Your task to perform on an android device: turn notification dots off Image 0: 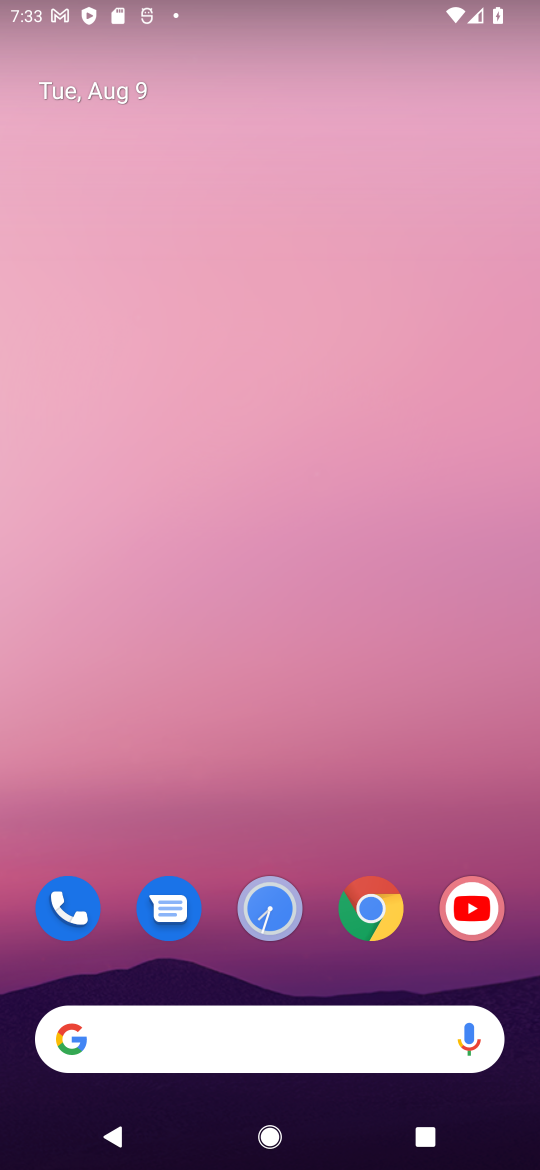
Step 0: drag from (298, 854) to (300, 104)
Your task to perform on an android device: turn notification dots off Image 1: 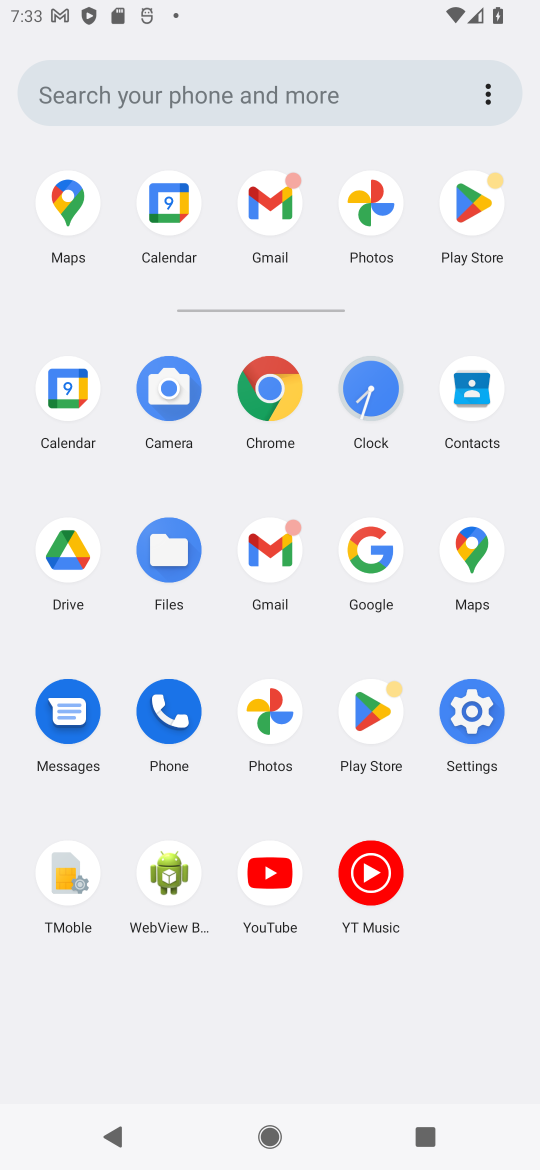
Step 1: click (472, 704)
Your task to perform on an android device: turn notification dots off Image 2: 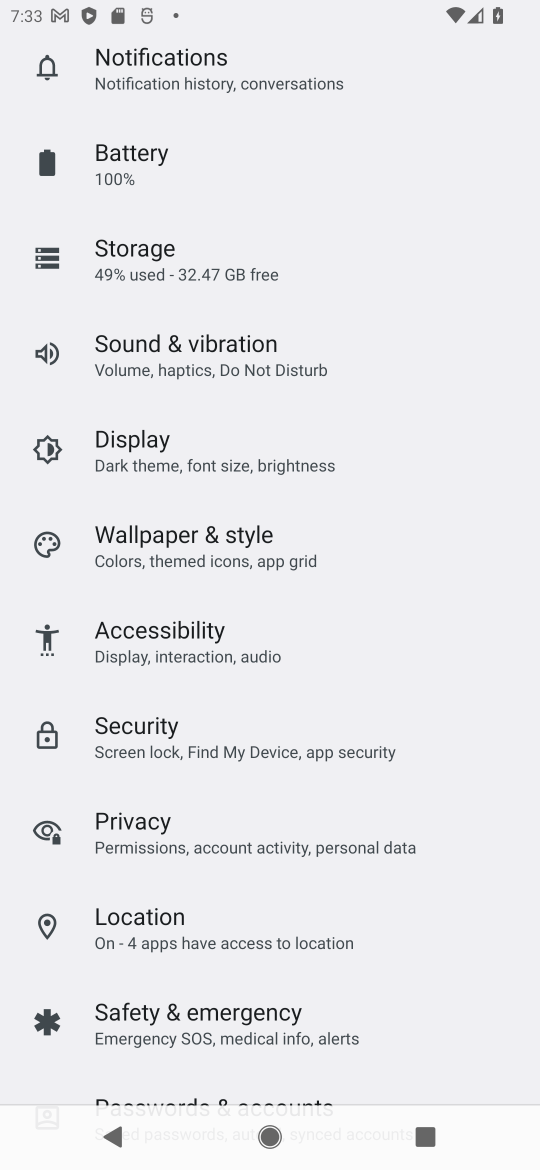
Step 2: drag from (195, 315) to (209, 748)
Your task to perform on an android device: turn notification dots off Image 3: 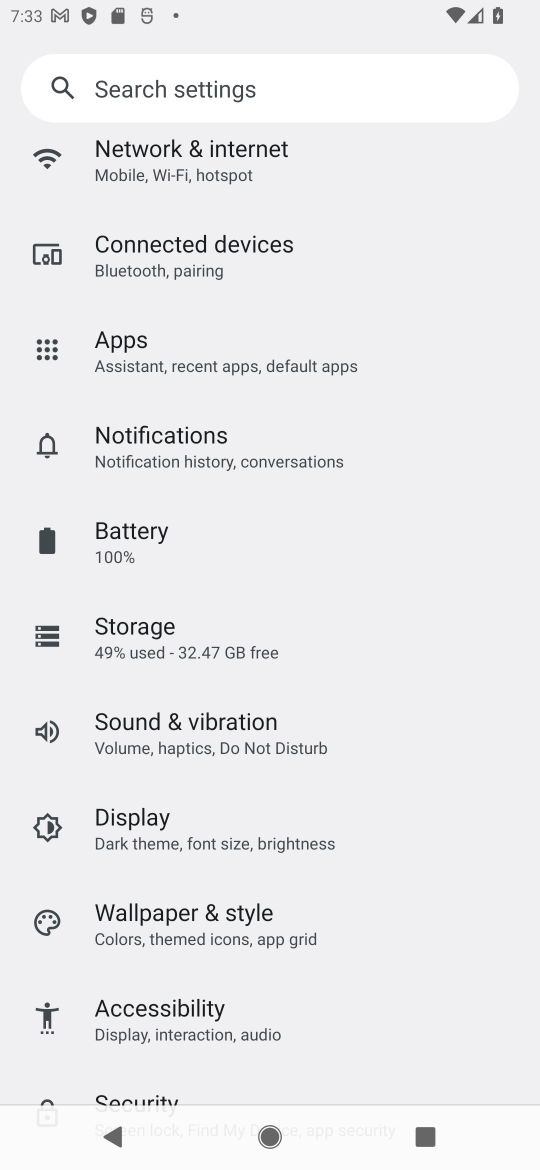
Step 3: drag from (220, 298) to (206, 664)
Your task to perform on an android device: turn notification dots off Image 4: 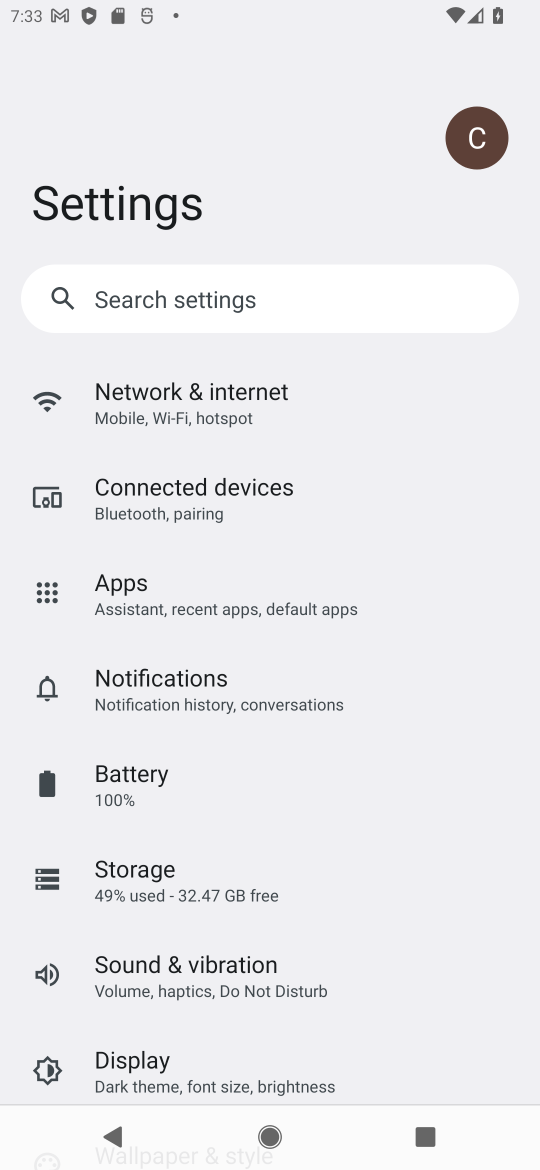
Step 4: click (187, 663)
Your task to perform on an android device: turn notification dots off Image 5: 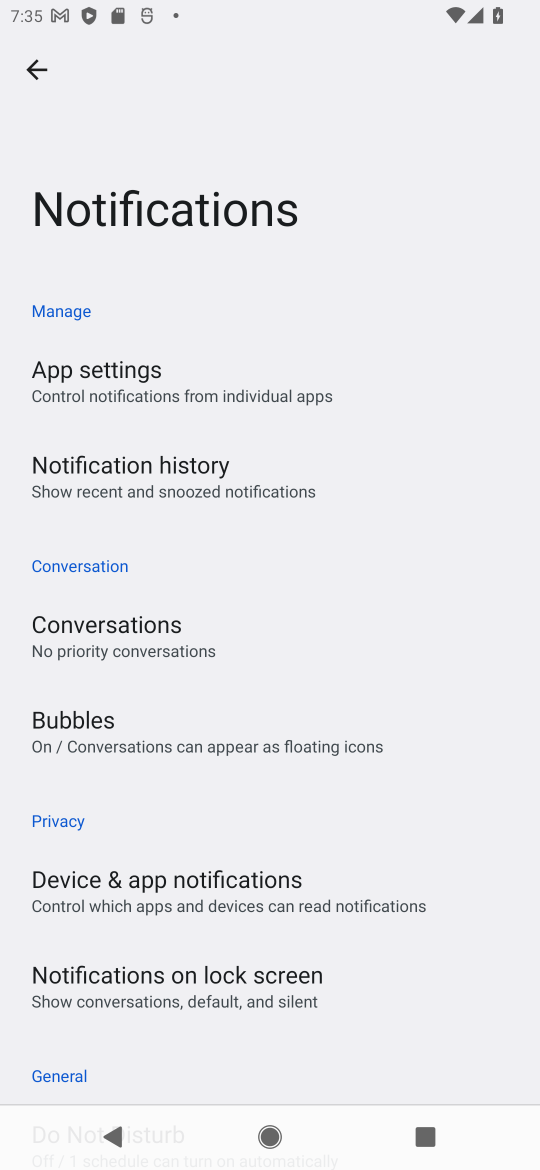
Step 5: drag from (157, 1005) to (215, 421)
Your task to perform on an android device: turn notification dots off Image 6: 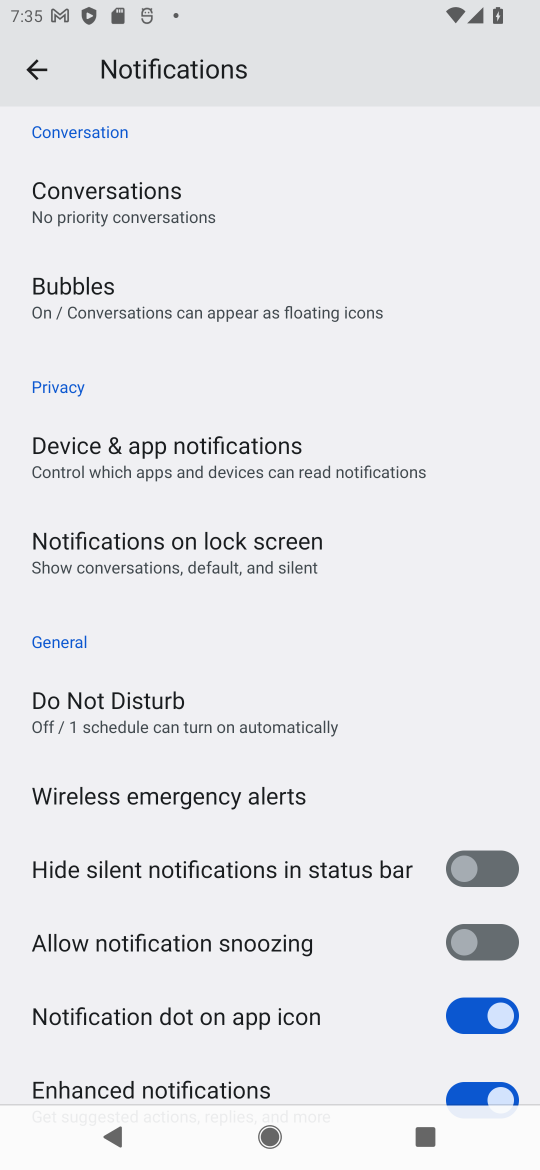
Step 6: click (473, 1013)
Your task to perform on an android device: turn notification dots off Image 7: 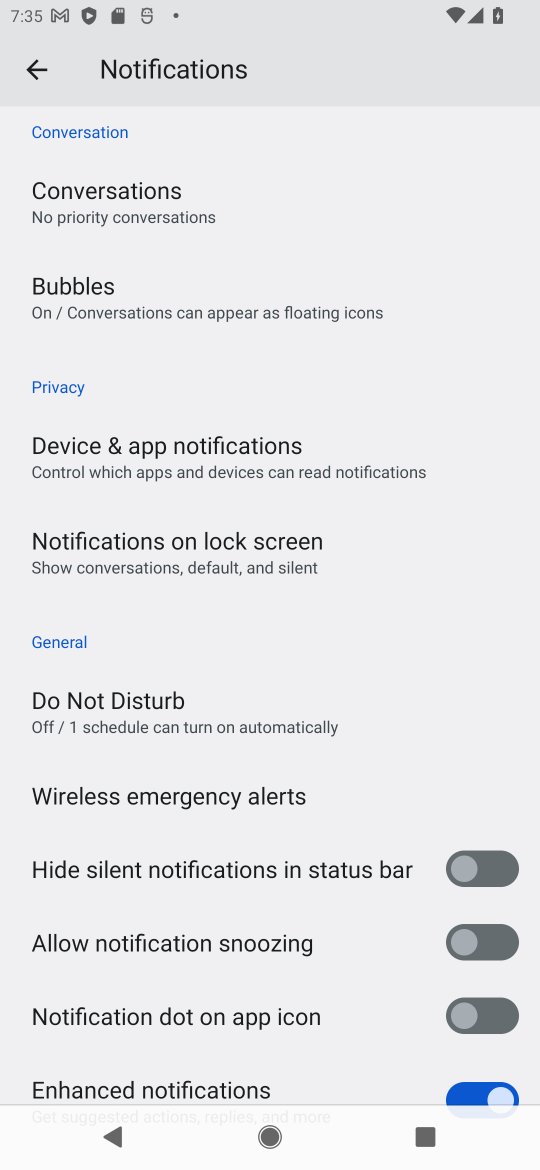
Step 7: task complete